Your task to perform on an android device: manage bookmarks in the chrome app Image 0: 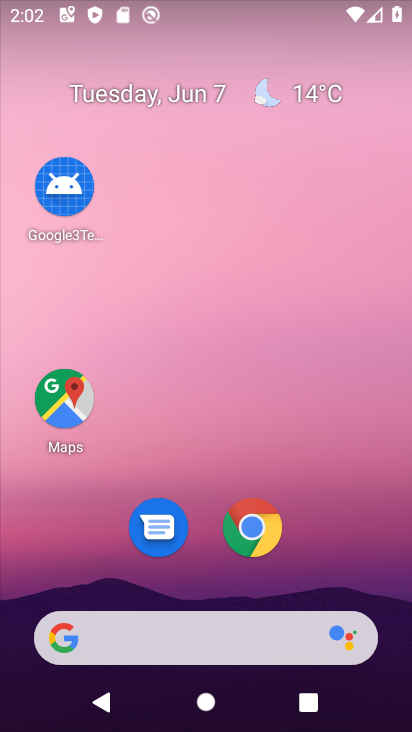
Step 0: click (257, 510)
Your task to perform on an android device: manage bookmarks in the chrome app Image 1: 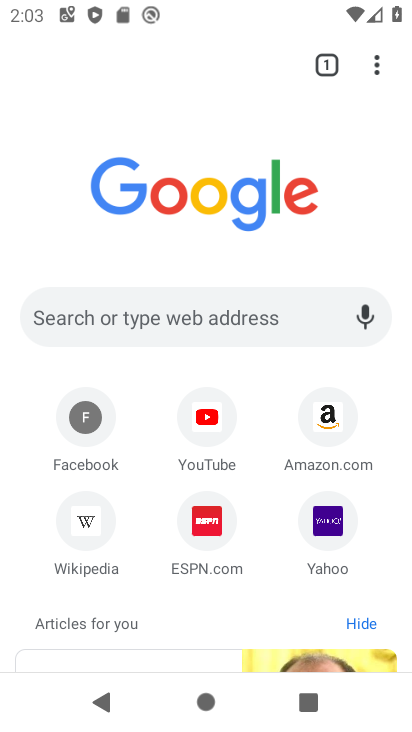
Step 1: click (371, 62)
Your task to perform on an android device: manage bookmarks in the chrome app Image 2: 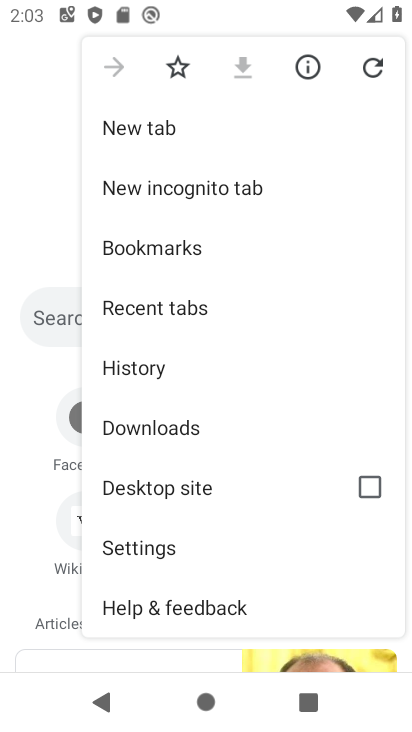
Step 2: click (181, 240)
Your task to perform on an android device: manage bookmarks in the chrome app Image 3: 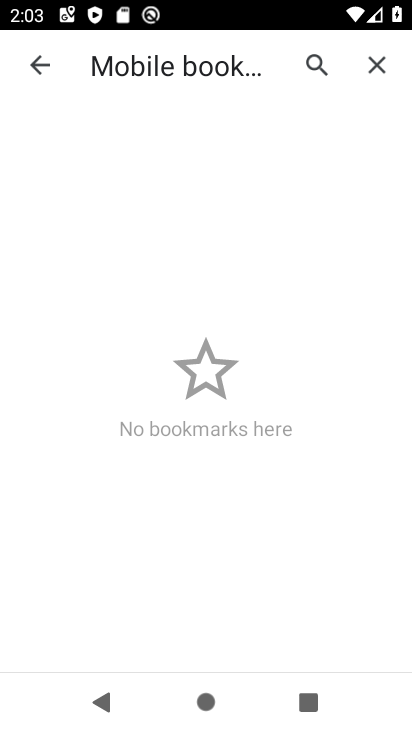
Step 3: task complete